Your task to perform on an android device: toggle show notifications on the lock screen Image 0: 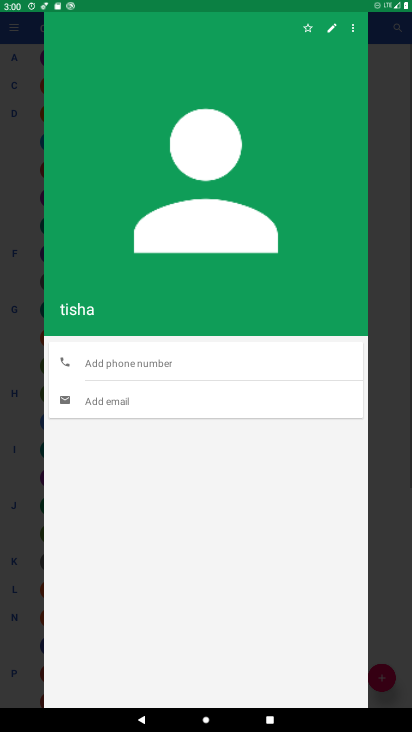
Step 0: press home button
Your task to perform on an android device: toggle show notifications on the lock screen Image 1: 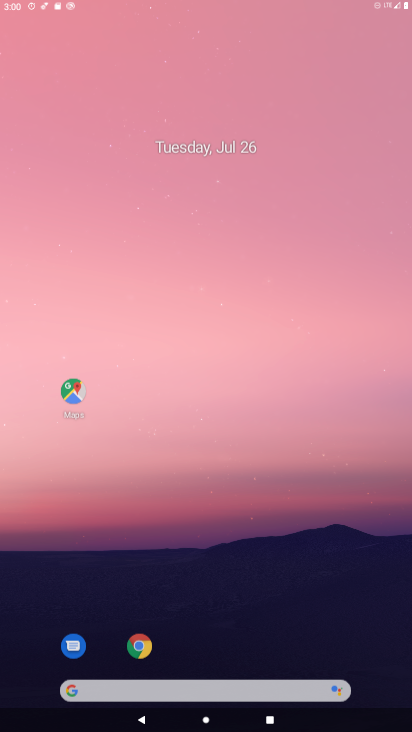
Step 1: drag from (338, 670) to (148, 42)
Your task to perform on an android device: toggle show notifications on the lock screen Image 2: 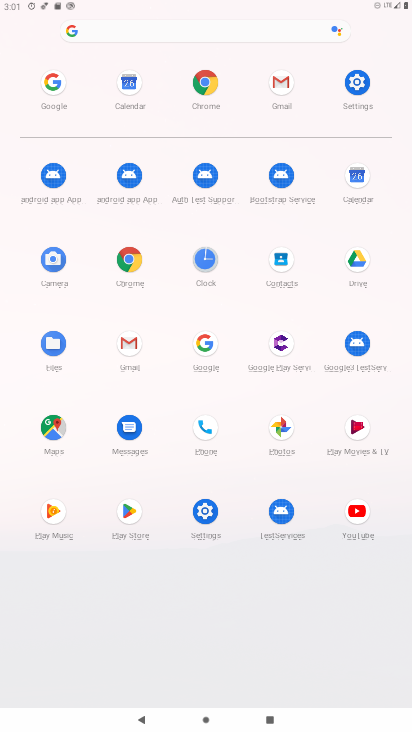
Step 2: click (207, 521)
Your task to perform on an android device: toggle show notifications on the lock screen Image 3: 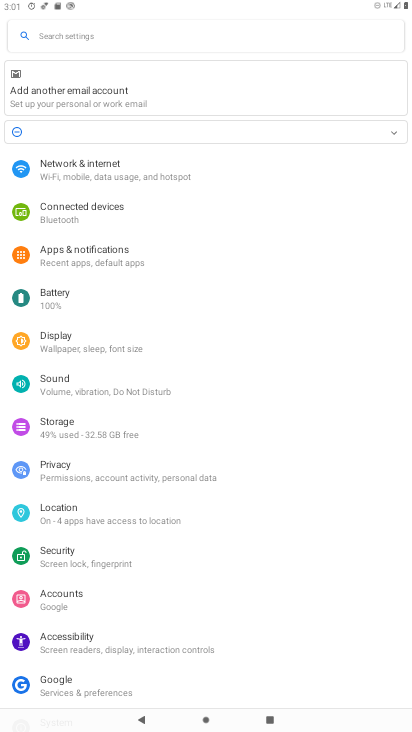
Step 3: click (125, 271)
Your task to perform on an android device: toggle show notifications on the lock screen Image 4: 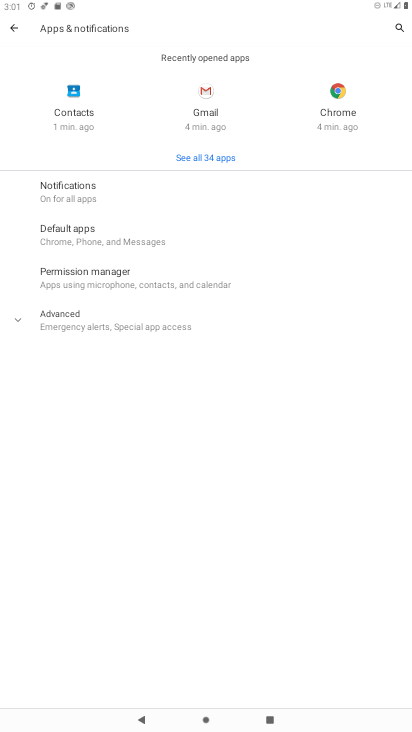
Step 4: click (88, 206)
Your task to perform on an android device: toggle show notifications on the lock screen Image 5: 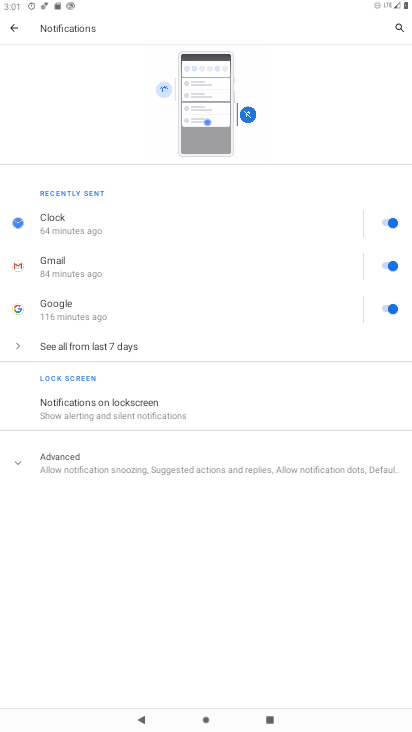
Step 5: click (127, 409)
Your task to perform on an android device: toggle show notifications on the lock screen Image 6: 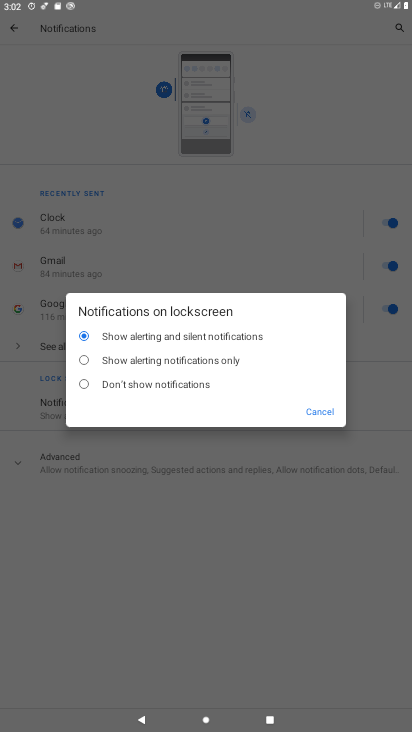
Step 6: click (101, 380)
Your task to perform on an android device: toggle show notifications on the lock screen Image 7: 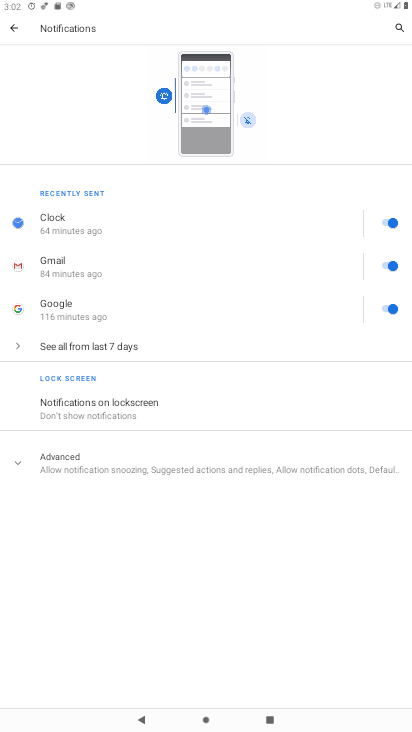
Step 7: task complete